Your task to perform on an android device: show emergency info Image 0: 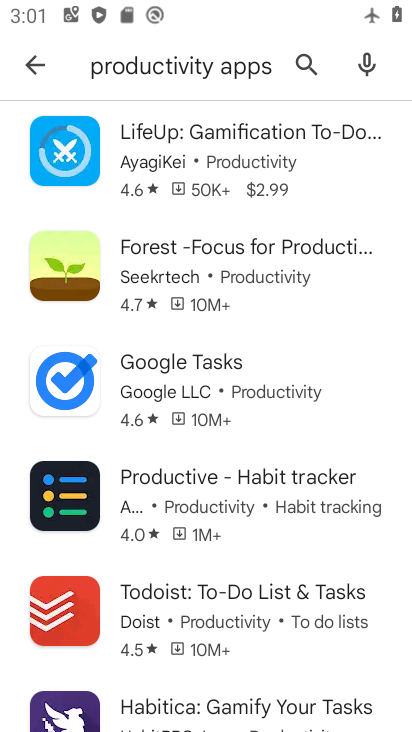
Step 0: press home button
Your task to perform on an android device: show emergency info Image 1: 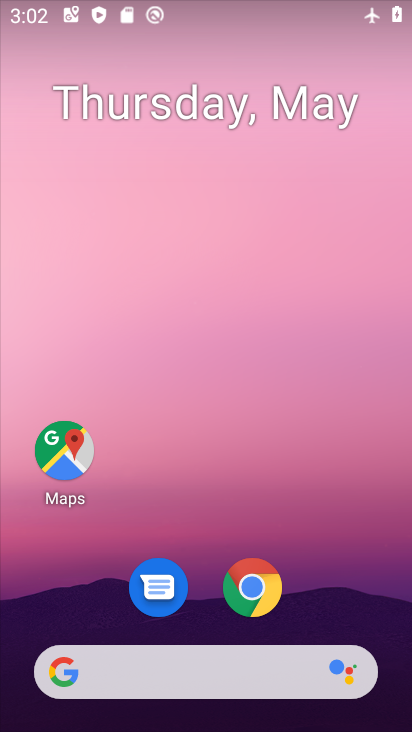
Step 1: drag from (201, 629) to (165, 0)
Your task to perform on an android device: show emergency info Image 2: 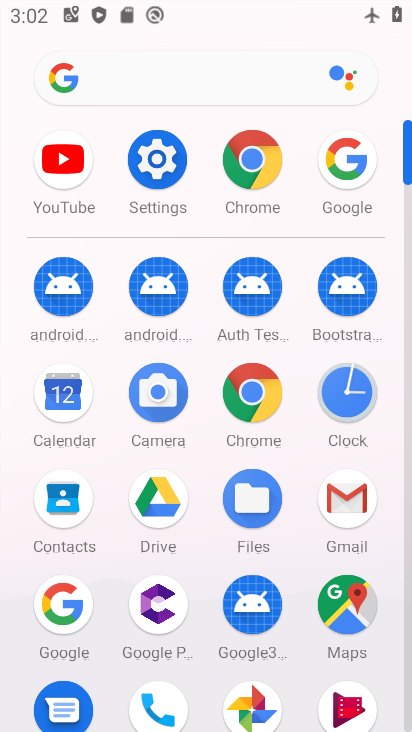
Step 2: click (146, 181)
Your task to perform on an android device: show emergency info Image 3: 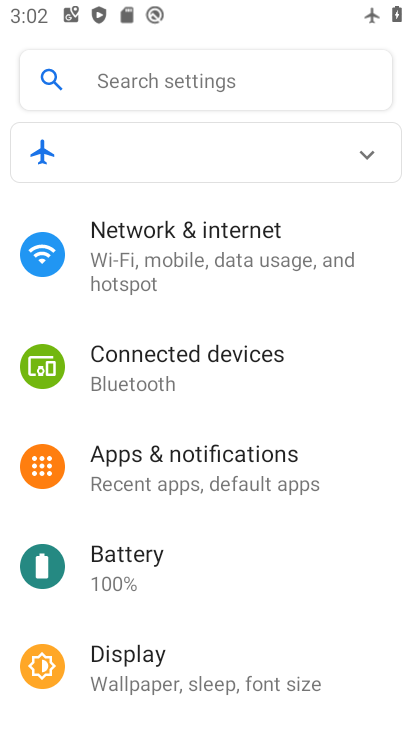
Step 3: drag from (189, 570) to (156, 54)
Your task to perform on an android device: show emergency info Image 4: 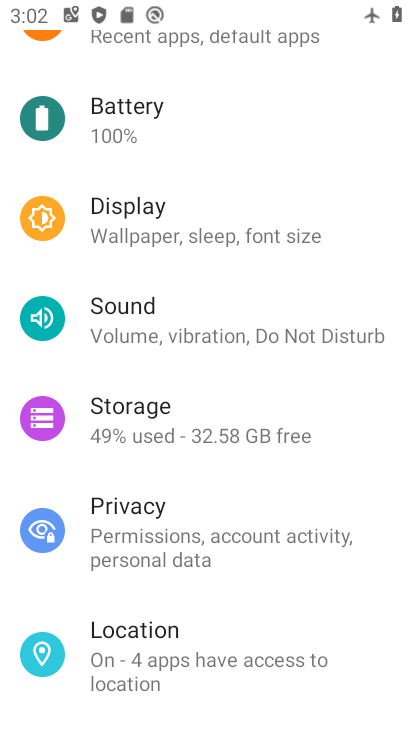
Step 4: drag from (184, 482) to (190, 38)
Your task to perform on an android device: show emergency info Image 5: 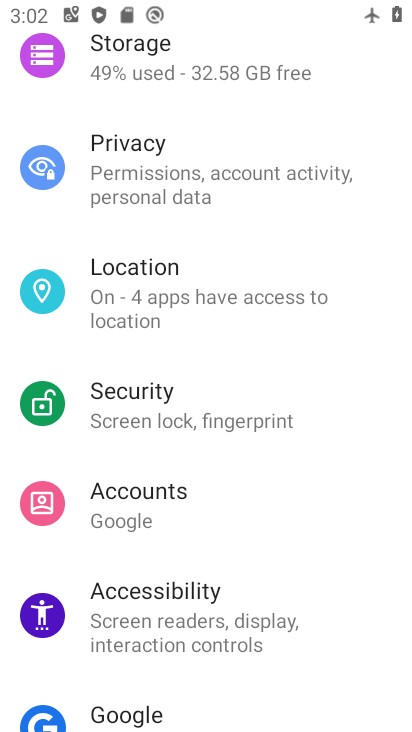
Step 5: drag from (239, 558) to (245, 1)
Your task to perform on an android device: show emergency info Image 6: 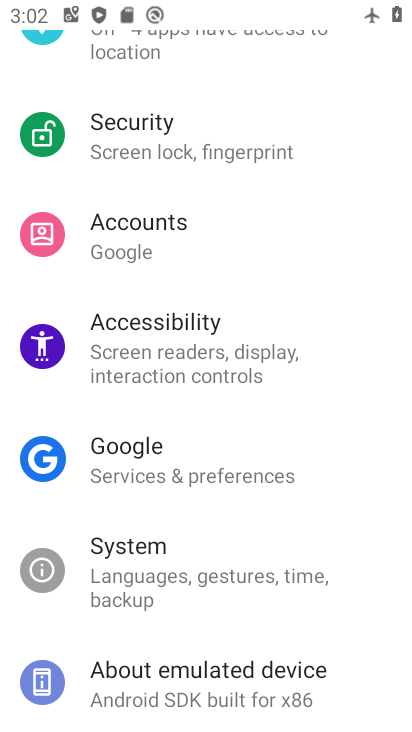
Step 6: click (205, 660)
Your task to perform on an android device: show emergency info Image 7: 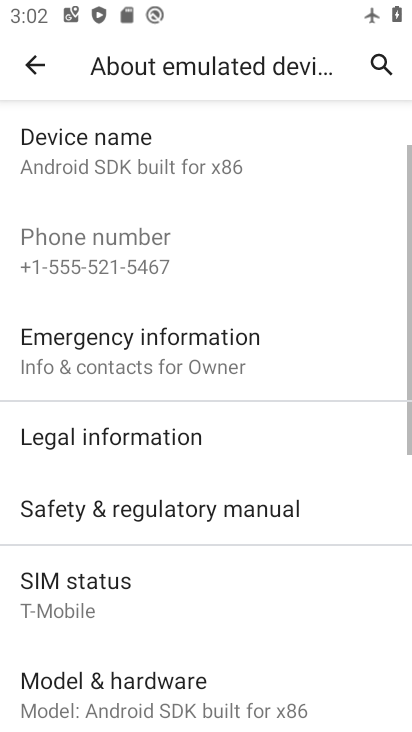
Step 7: click (231, 316)
Your task to perform on an android device: show emergency info Image 8: 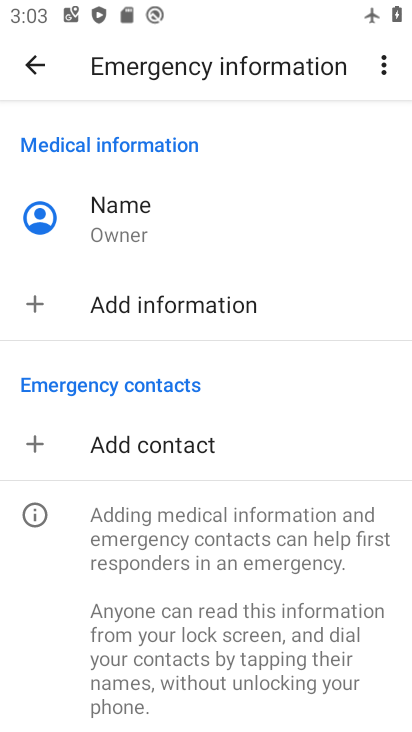
Step 8: task complete